Your task to perform on an android device: all mails in gmail Image 0: 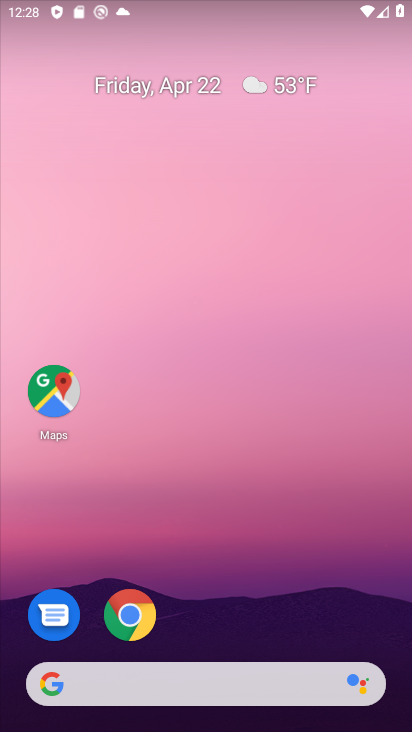
Step 0: click (208, 166)
Your task to perform on an android device: all mails in gmail Image 1: 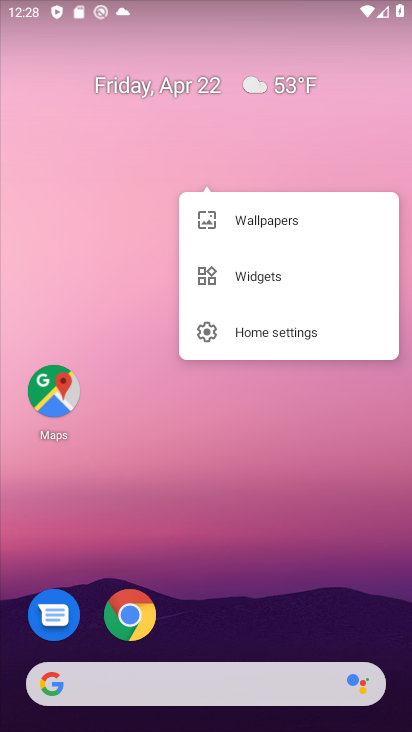
Step 1: drag from (232, 722) to (218, 317)
Your task to perform on an android device: all mails in gmail Image 2: 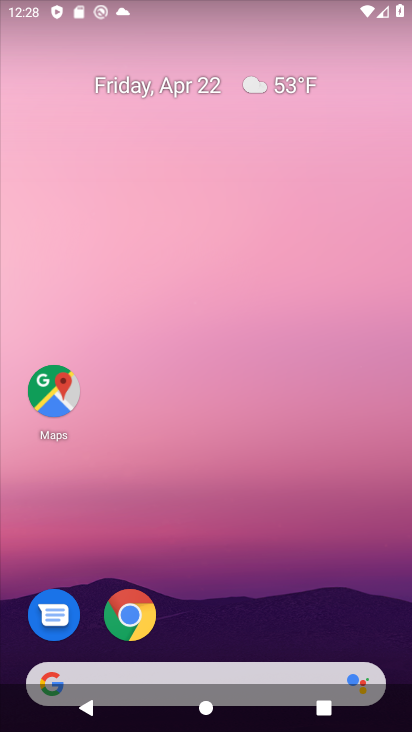
Step 2: drag from (249, 717) to (239, 235)
Your task to perform on an android device: all mails in gmail Image 3: 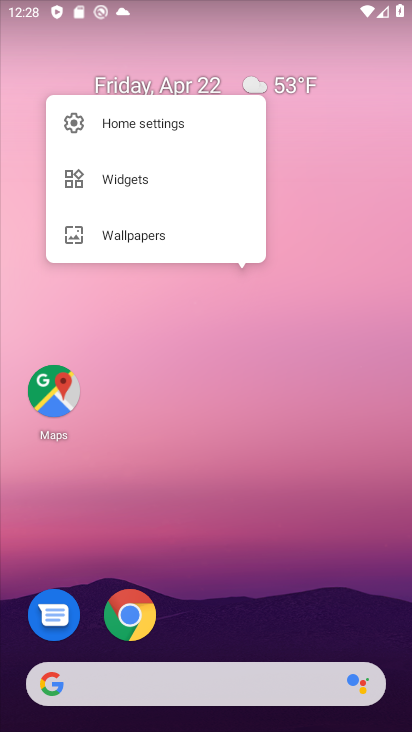
Step 3: drag from (303, 727) to (284, 229)
Your task to perform on an android device: all mails in gmail Image 4: 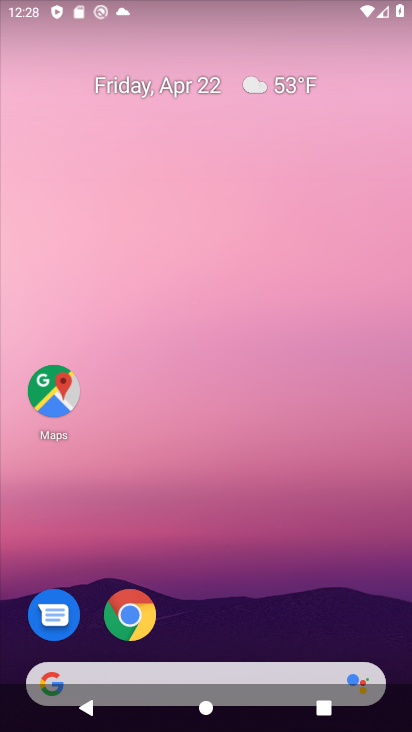
Step 4: drag from (216, 411) to (264, 73)
Your task to perform on an android device: all mails in gmail Image 5: 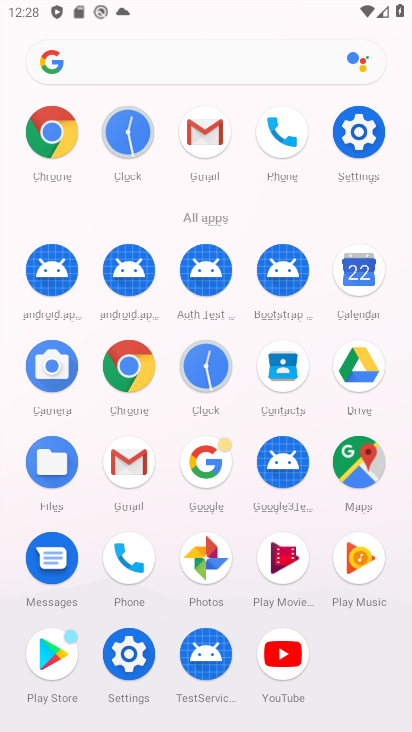
Step 5: click (186, 119)
Your task to perform on an android device: all mails in gmail Image 6: 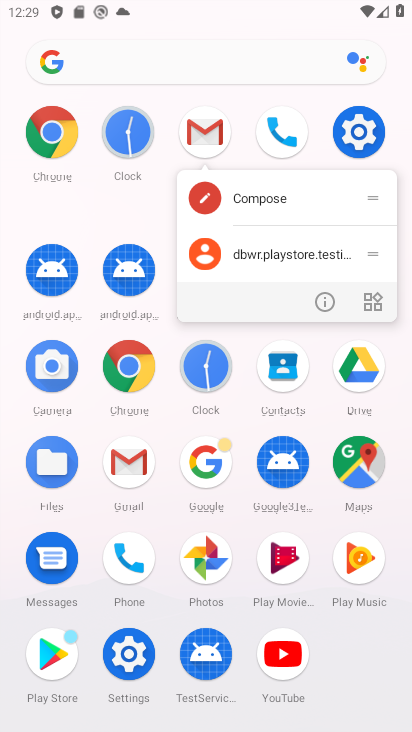
Step 6: click (212, 139)
Your task to perform on an android device: all mails in gmail Image 7: 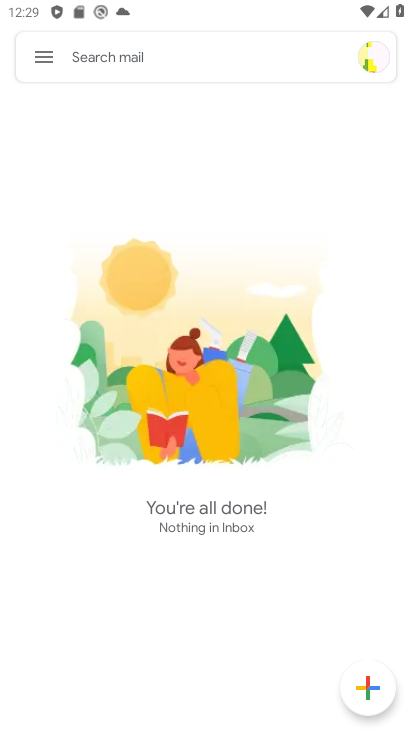
Step 7: click (43, 52)
Your task to perform on an android device: all mails in gmail Image 8: 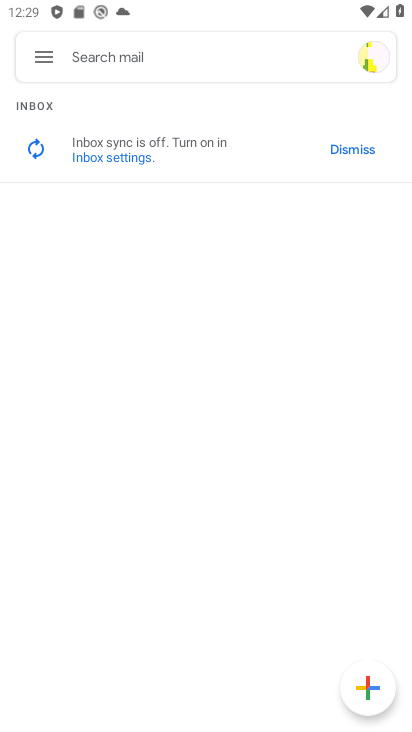
Step 8: click (42, 64)
Your task to perform on an android device: all mails in gmail Image 9: 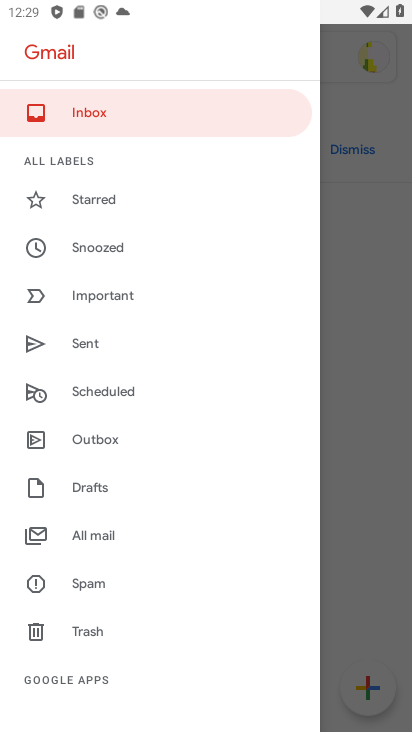
Step 9: click (136, 540)
Your task to perform on an android device: all mails in gmail Image 10: 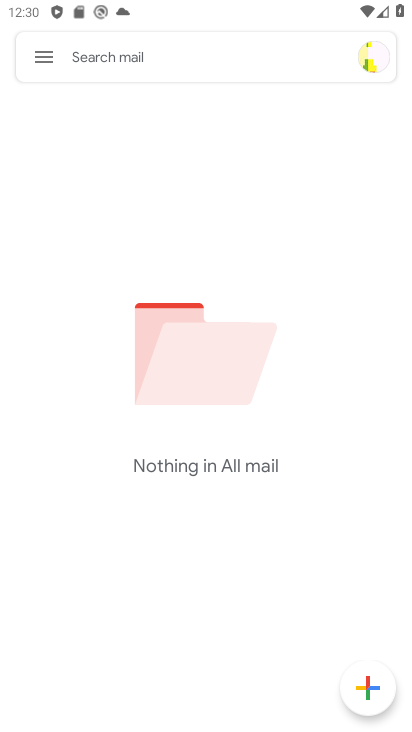
Step 10: task complete